Your task to perform on an android device: Open Reddit.com Image 0: 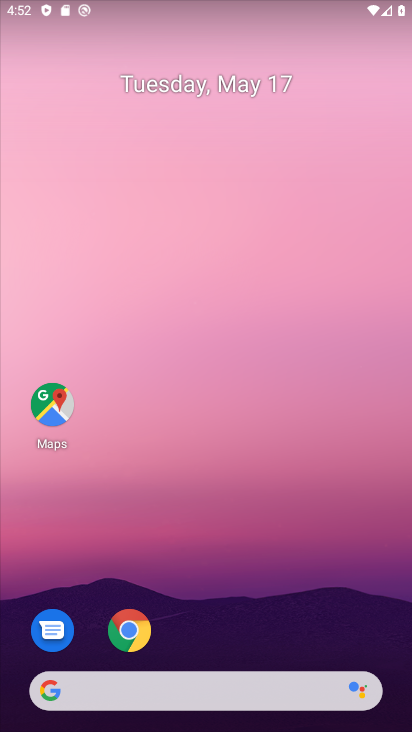
Step 0: click (120, 629)
Your task to perform on an android device: Open Reddit.com Image 1: 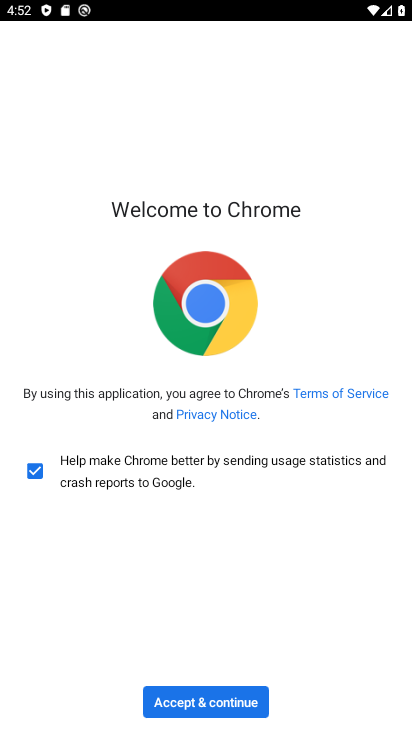
Step 1: click (197, 712)
Your task to perform on an android device: Open Reddit.com Image 2: 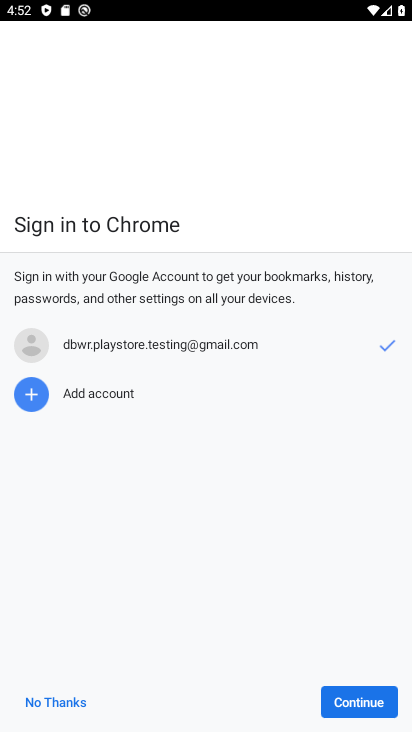
Step 2: click (351, 706)
Your task to perform on an android device: Open Reddit.com Image 3: 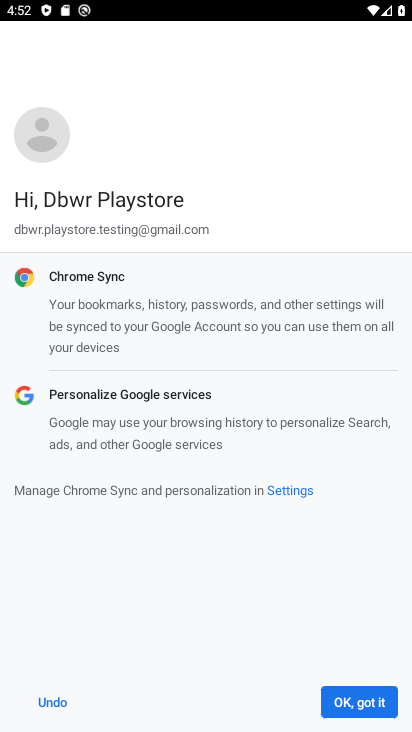
Step 3: click (352, 705)
Your task to perform on an android device: Open Reddit.com Image 4: 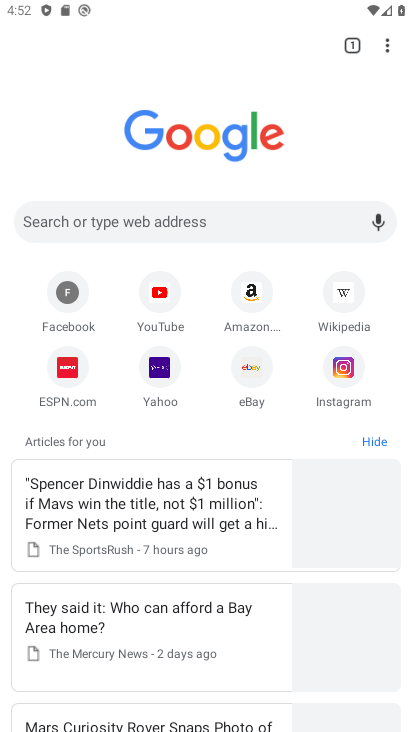
Step 4: click (205, 214)
Your task to perform on an android device: Open Reddit.com Image 5: 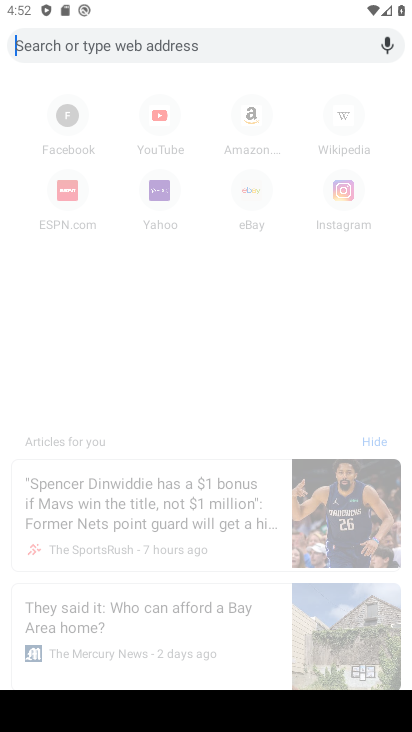
Step 5: type "reddit.com"
Your task to perform on an android device: Open Reddit.com Image 6: 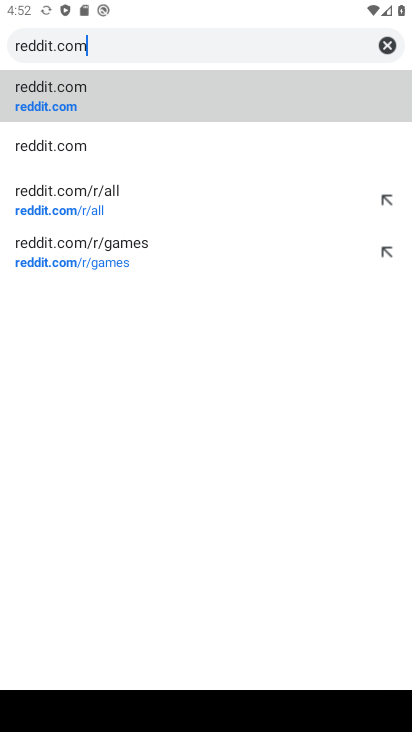
Step 6: click (37, 108)
Your task to perform on an android device: Open Reddit.com Image 7: 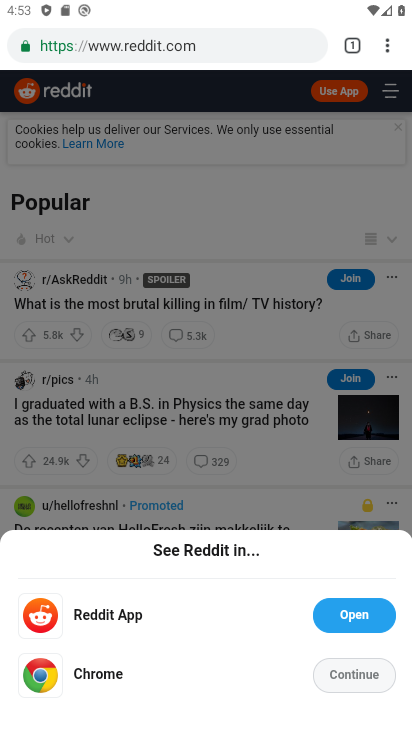
Step 7: task complete